Your task to perform on an android device: turn off airplane mode Image 0: 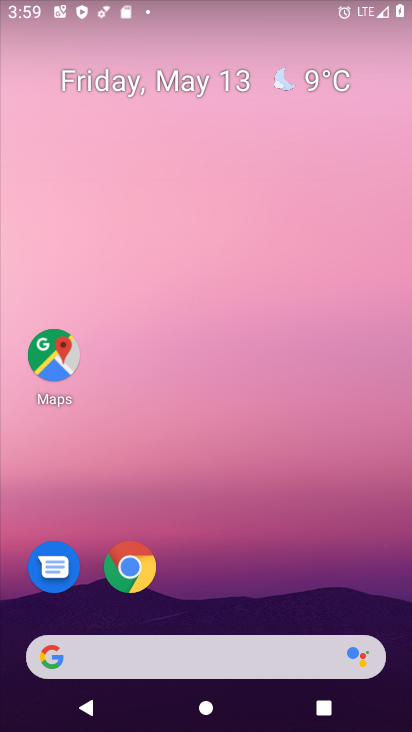
Step 0: drag from (256, 624) to (283, 28)
Your task to perform on an android device: turn off airplane mode Image 1: 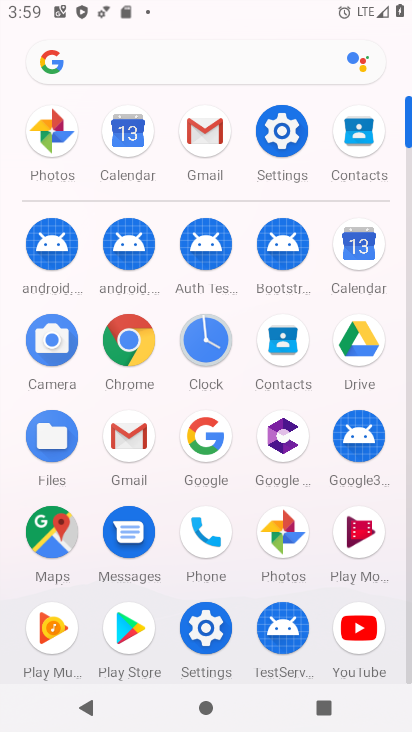
Step 1: click (281, 131)
Your task to perform on an android device: turn off airplane mode Image 2: 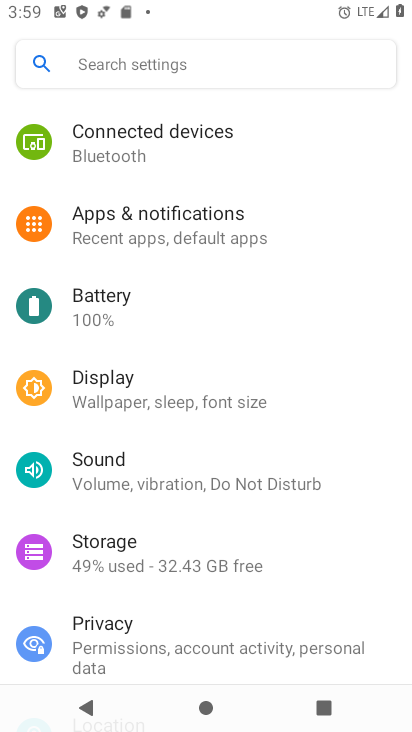
Step 2: drag from (331, 173) to (278, 633)
Your task to perform on an android device: turn off airplane mode Image 3: 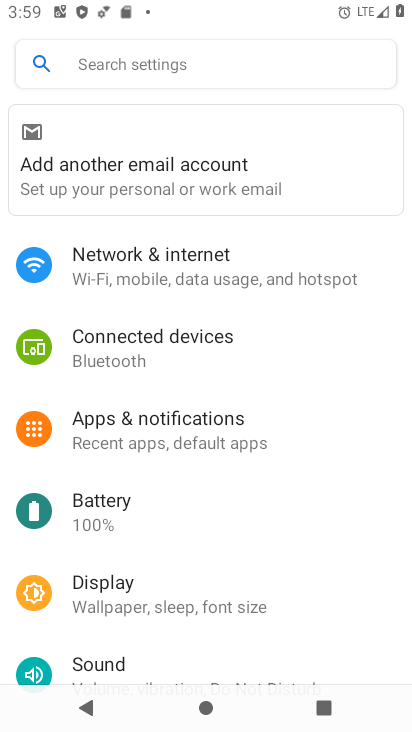
Step 3: click (200, 274)
Your task to perform on an android device: turn off airplane mode Image 4: 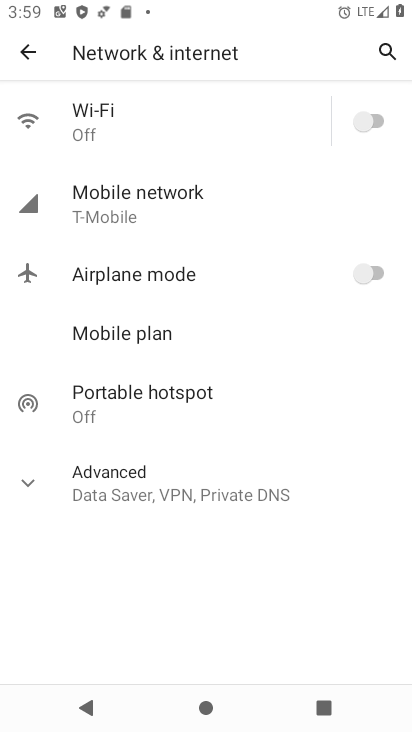
Step 4: task complete